Your task to perform on an android device: Open privacy settings Image 0: 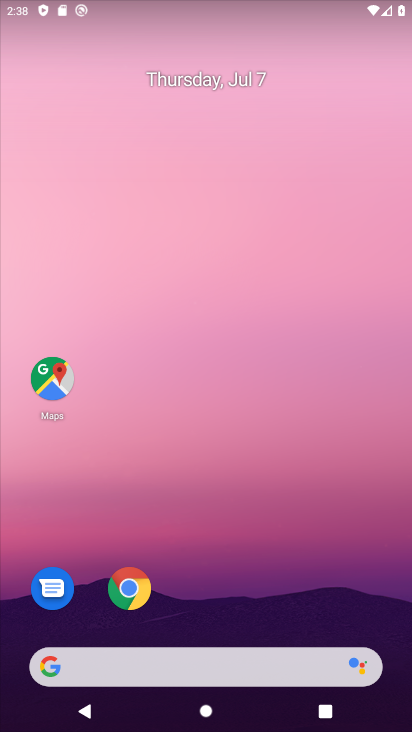
Step 0: drag from (213, 612) to (198, 118)
Your task to perform on an android device: Open privacy settings Image 1: 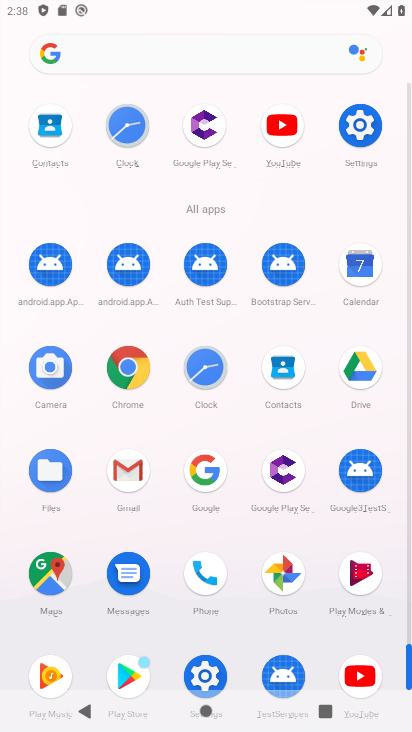
Step 1: click (361, 124)
Your task to perform on an android device: Open privacy settings Image 2: 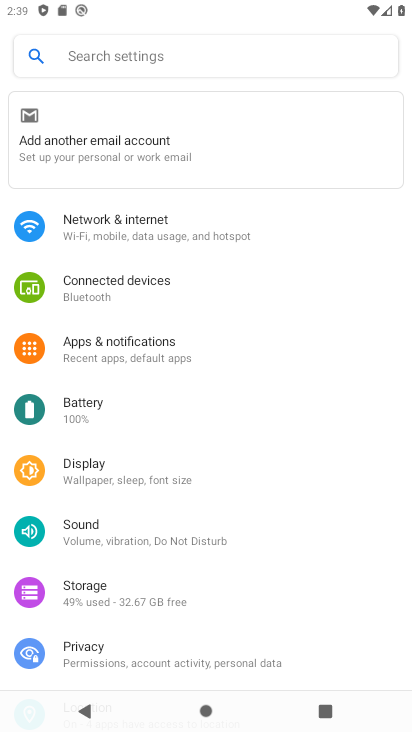
Step 2: click (85, 649)
Your task to perform on an android device: Open privacy settings Image 3: 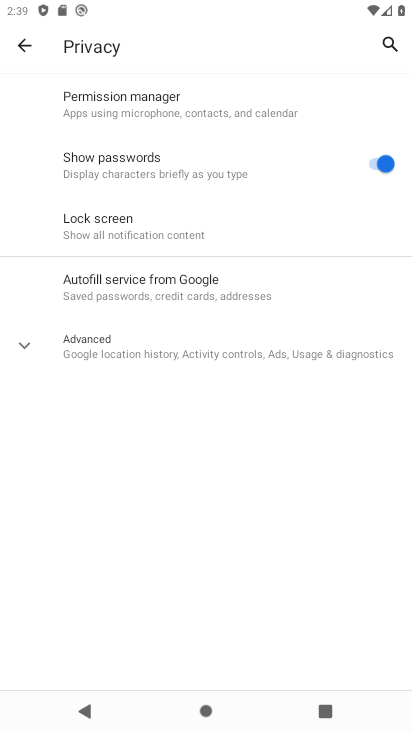
Step 3: task complete